Your task to perform on an android device: snooze an email in the gmail app Image 0: 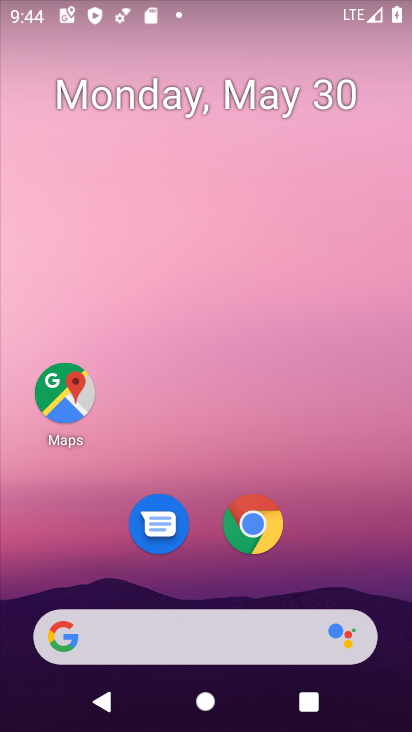
Step 0: drag from (363, 552) to (261, 15)
Your task to perform on an android device: snooze an email in the gmail app Image 1: 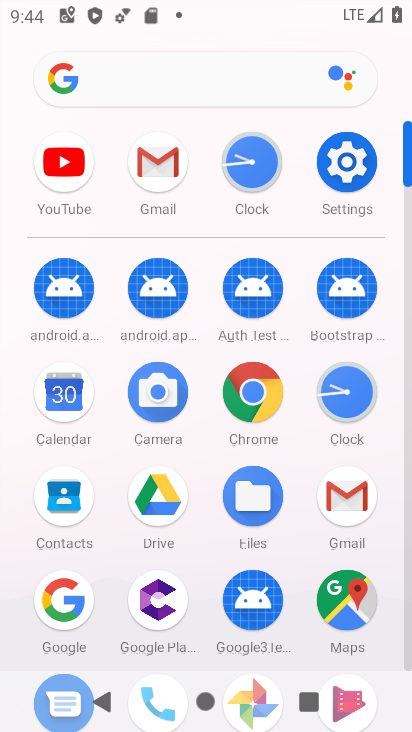
Step 1: click (163, 141)
Your task to perform on an android device: snooze an email in the gmail app Image 2: 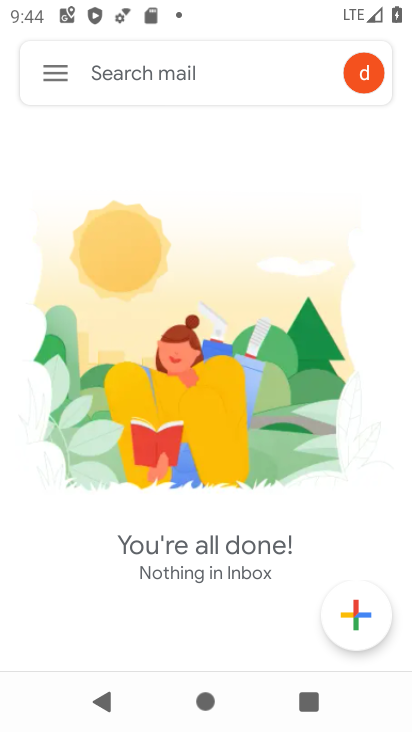
Step 2: click (48, 69)
Your task to perform on an android device: snooze an email in the gmail app Image 3: 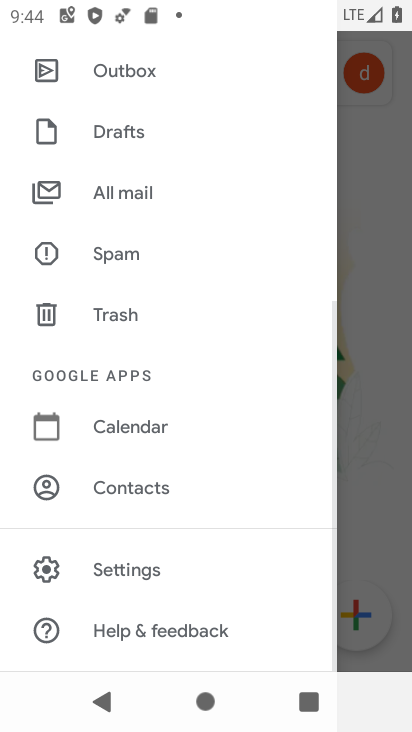
Step 3: click (117, 189)
Your task to perform on an android device: snooze an email in the gmail app Image 4: 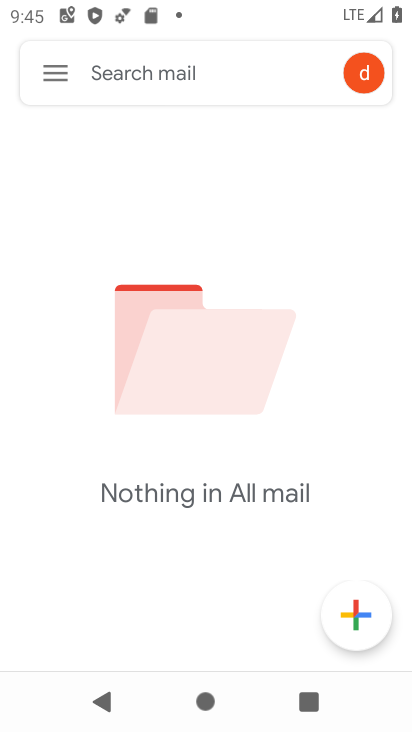
Step 4: task complete